Your task to perform on an android device: see sites visited before in the chrome app Image 0: 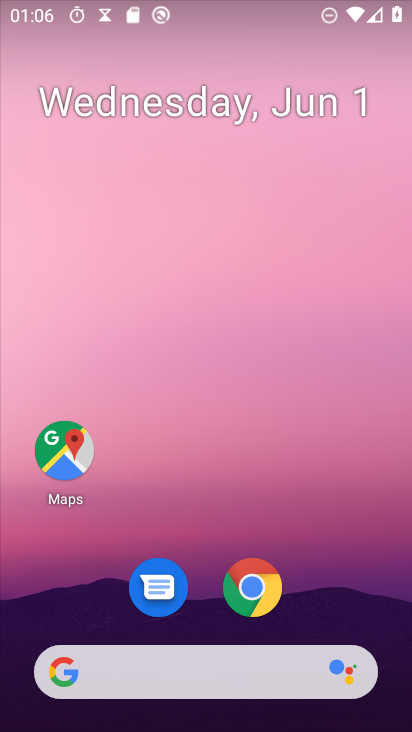
Step 0: click (251, 591)
Your task to perform on an android device: see sites visited before in the chrome app Image 1: 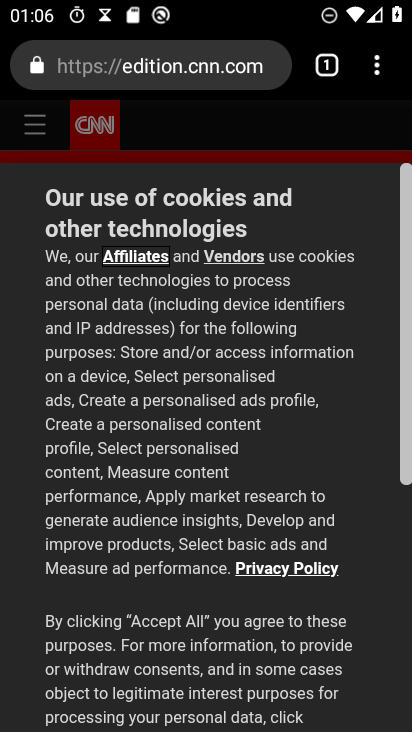
Step 1: click (385, 72)
Your task to perform on an android device: see sites visited before in the chrome app Image 2: 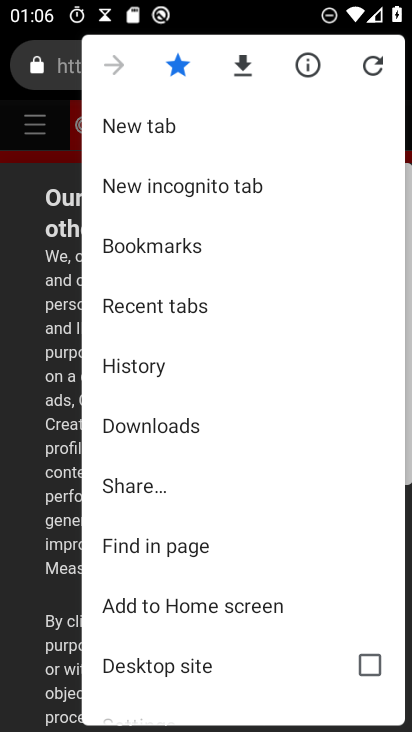
Step 2: click (179, 363)
Your task to perform on an android device: see sites visited before in the chrome app Image 3: 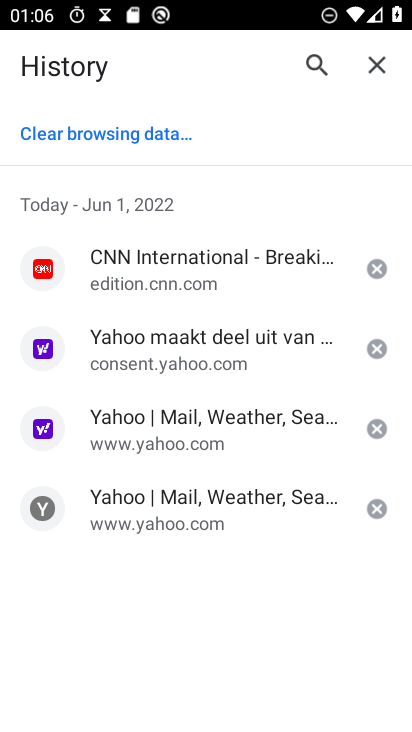
Step 3: task complete